Your task to perform on an android device: Open display settings Image 0: 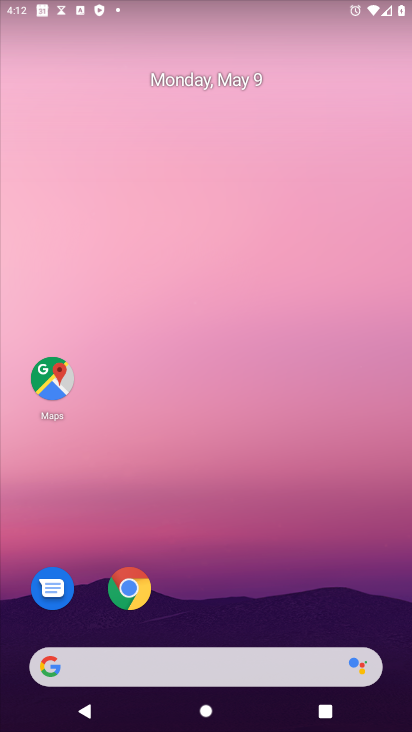
Step 0: drag from (218, 484) to (110, 31)
Your task to perform on an android device: Open display settings Image 1: 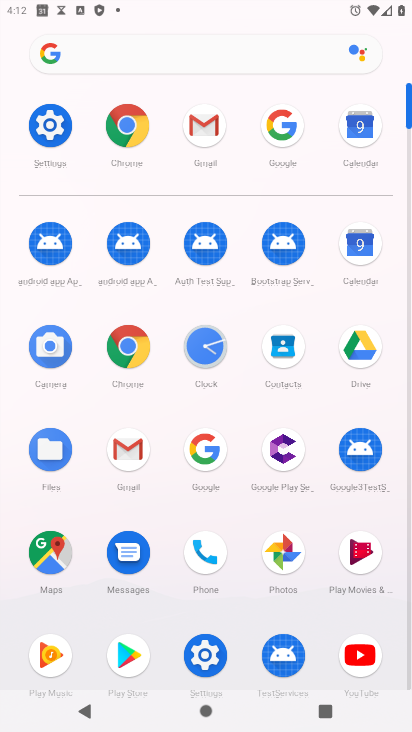
Step 1: click (61, 123)
Your task to perform on an android device: Open display settings Image 2: 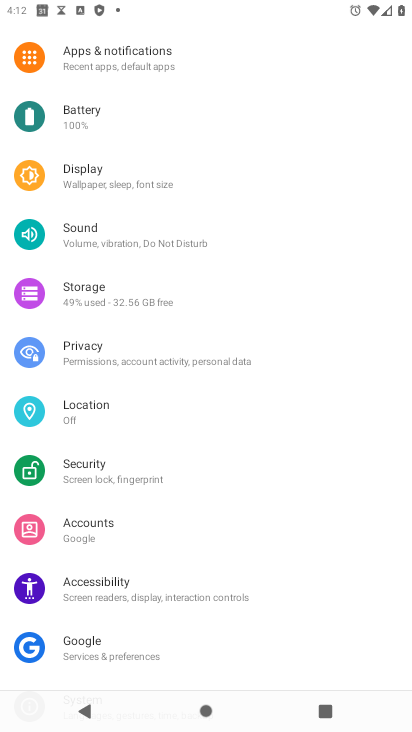
Step 2: click (143, 183)
Your task to perform on an android device: Open display settings Image 3: 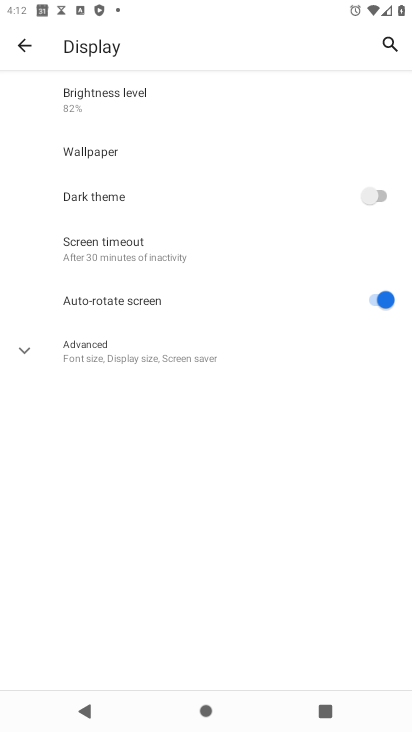
Step 3: task complete